Your task to perform on an android device: Open privacy settings Image 0: 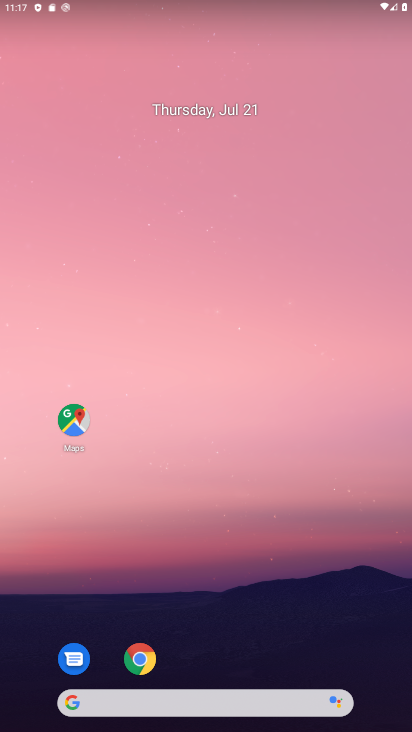
Step 0: drag from (217, 633) to (265, 3)
Your task to perform on an android device: Open privacy settings Image 1: 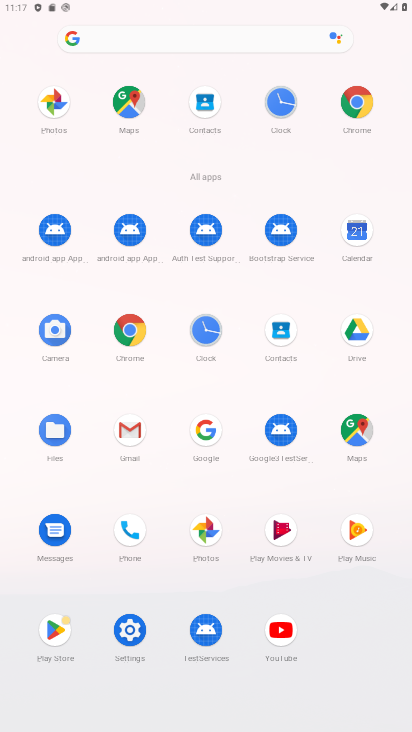
Step 1: click (105, 629)
Your task to perform on an android device: Open privacy settings Image 2: 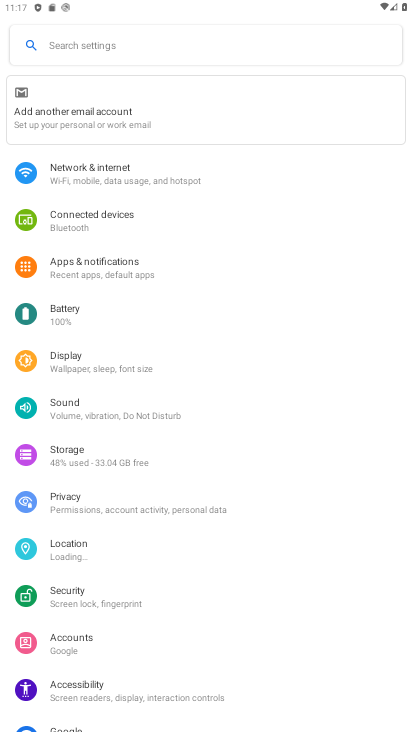
Step 2: click (113, 526)
Your task to perform on an android device: Open privacy settings Image 3: 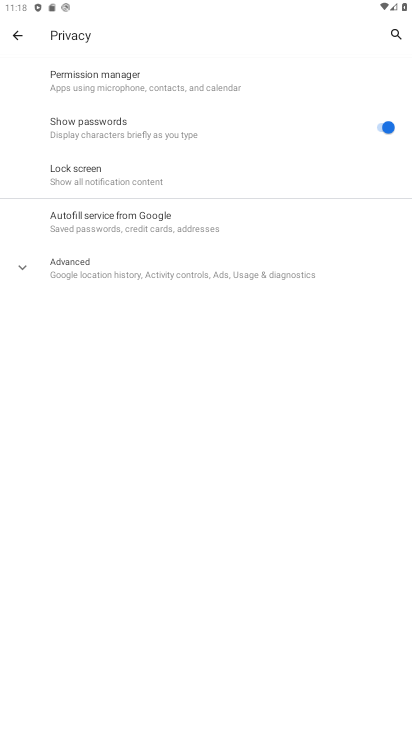
Step 3: task complete